Your task to perform on an android device: find snoozed emails in the gmail app Image 0: 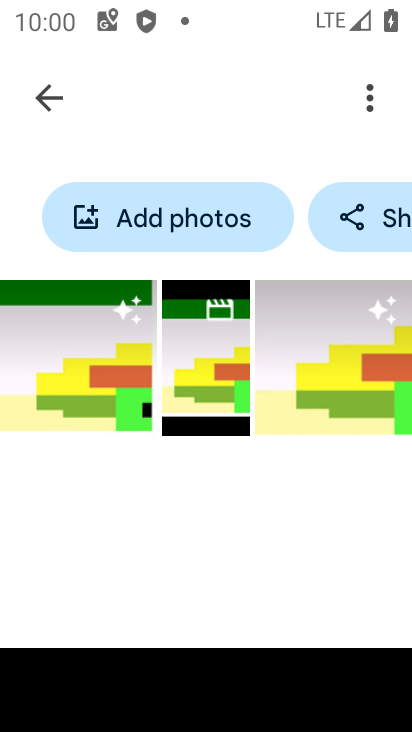
Step 0: press home button
Your task to perform on an android device: find snoozed emails in the gmail app Image 1: 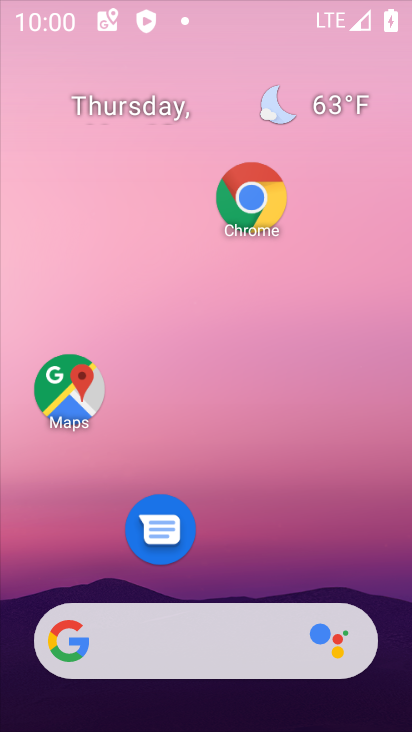
Step 1: drag from (171, 695) to (196, 147)
Your task to perform on an android device: find snoozed emails in the gmail app Image 2: 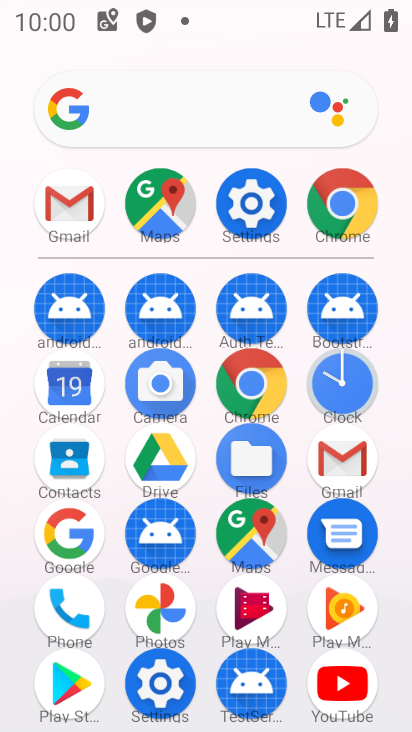
Step 2: click (347, 475)
Your task to perform on an android device: find snoozed emails in the gmail app Image 3: 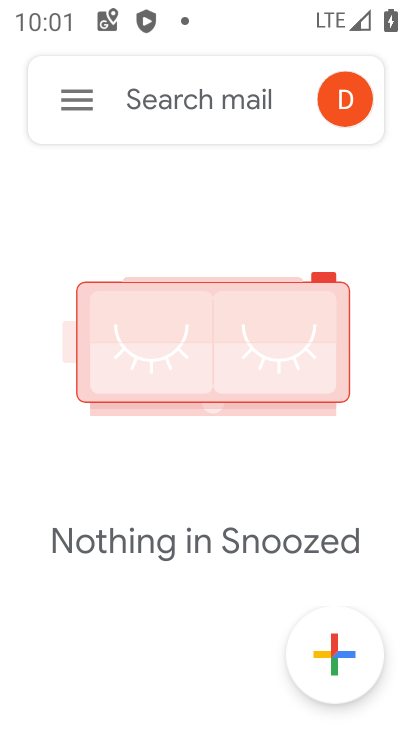
Step 3: press home button
Your task to perform on an android device: find snoozed emails in the gmail app Image 4: 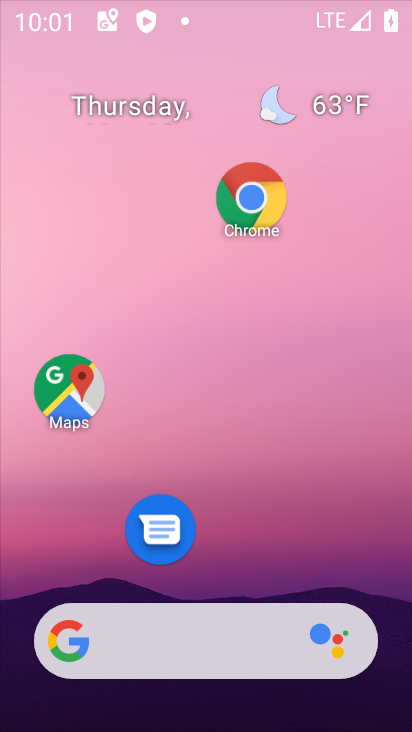
Step 4: drag from (207, 695) to (193, 233)
Your task to perform on an android device: find snoozed emails in the gmail app Image 5: 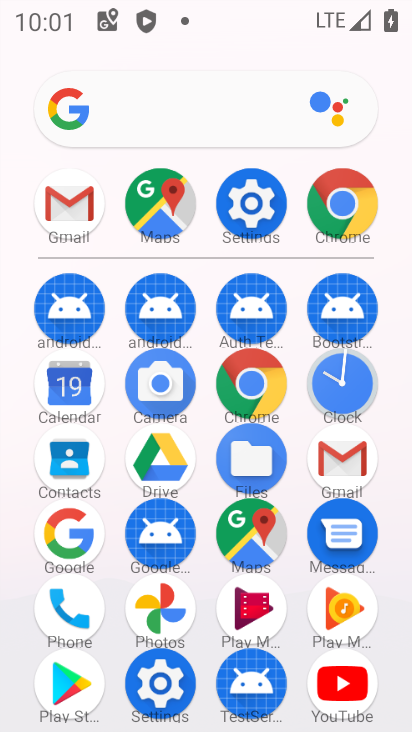
Step 5: click (350, 486)
Your task to perform on an android device: find snoozed emails in the gmail app Image 6: 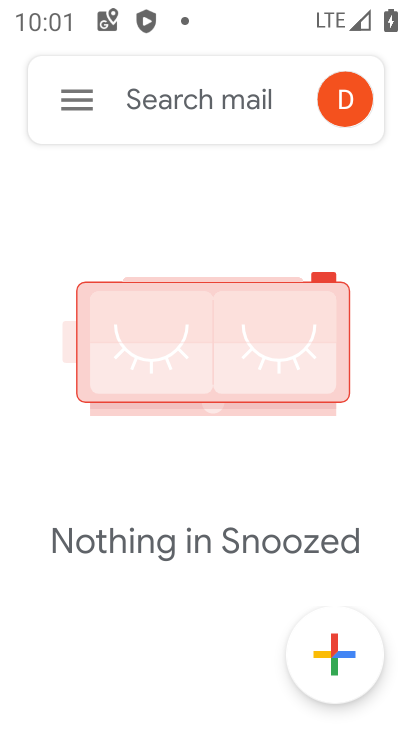
Step 6: click (77, 108)
Your task to perform on an android device: find snoozed emails in the gmail app Image 7: 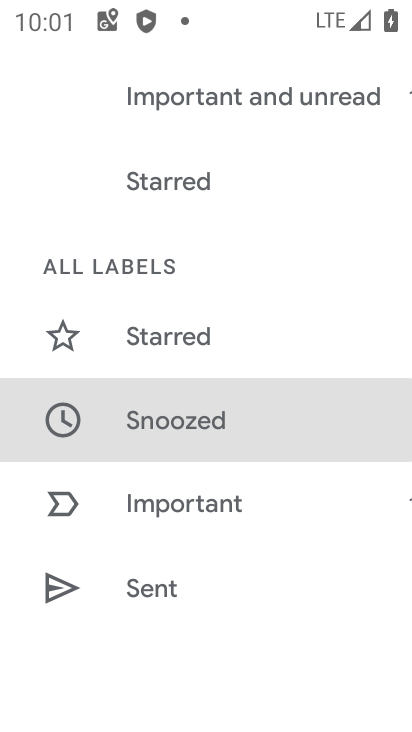
Step 7: drag from (176, 559) to (246, 253)
Your task to perform on an android device: find snoozed emails in the gmail app Image 8: 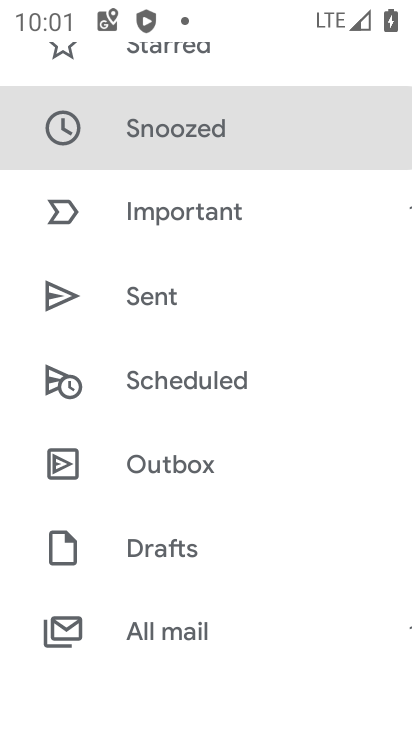
Step 8: drag from (180, 520) to (225, 234)
Your task to perform on an android device: find snoozed emails in the gmail app Image 9: 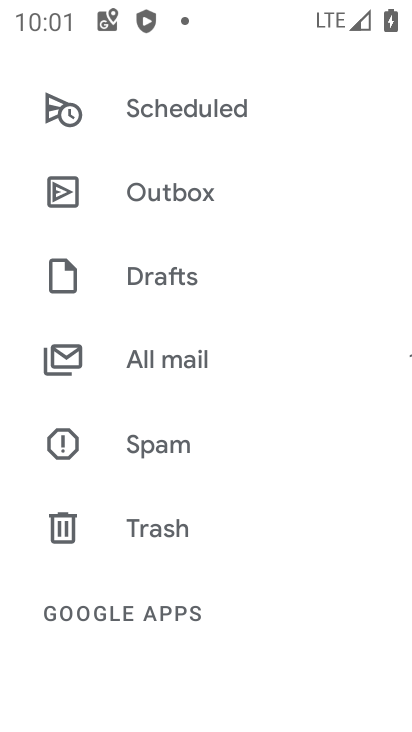
Step 9: drag from (147, 315) to (151, 726)
Your task to perform on an android device: find snoozed emails in the gmail app Image 10: 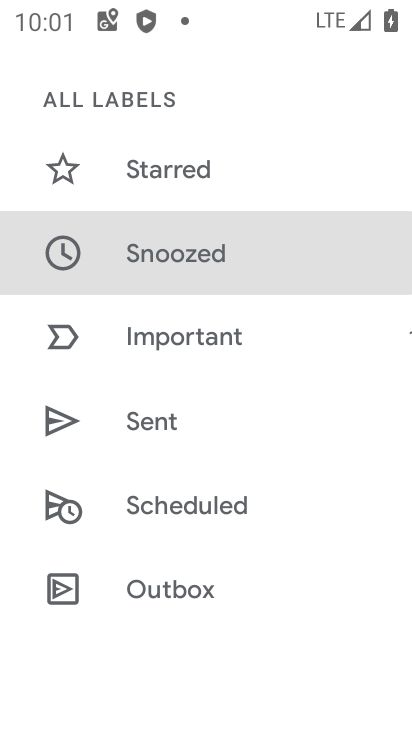
Step 10: click (146, 261)
Your task to perform on an android device: find snoozed emails in the gmail app Image 11: 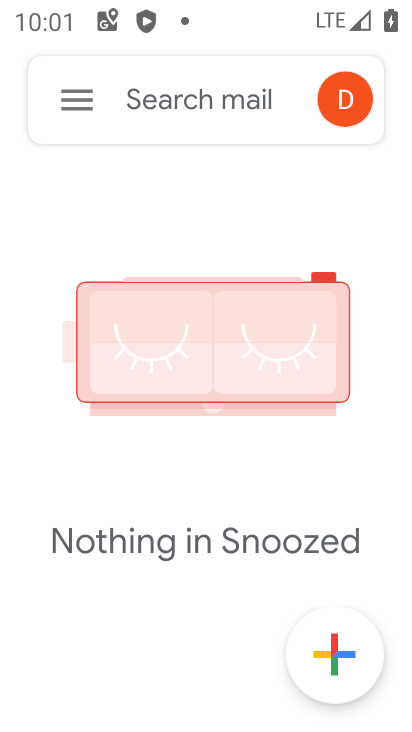
Step 11: task complete